Your task to perform on an android device: turn vacation reply on in the gmail app Image 0: 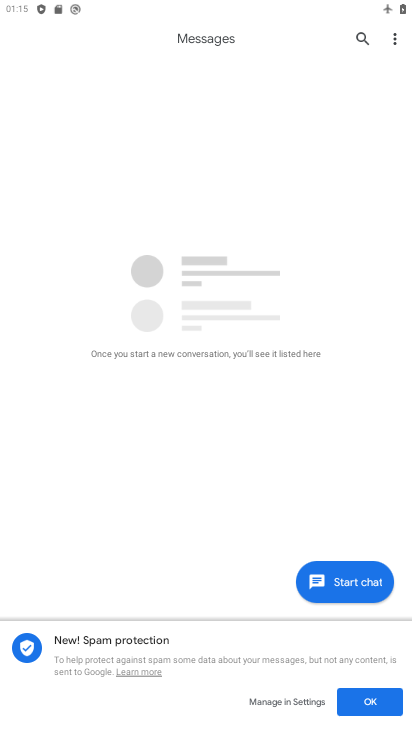
Step 0: press home button
Your task to perform on an android device: turn vacation reply on in the gmail app Image 1: 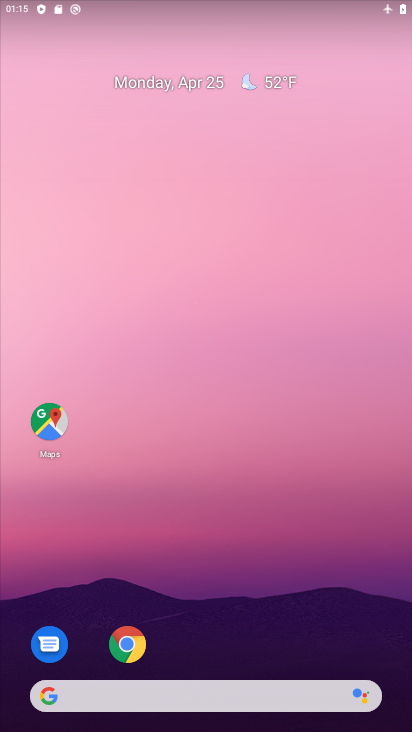
Step 1: drag from (208, 642) to (210, 90)
Your task to perform on an android device: turn vacation reply on in the gmail app Image 2: 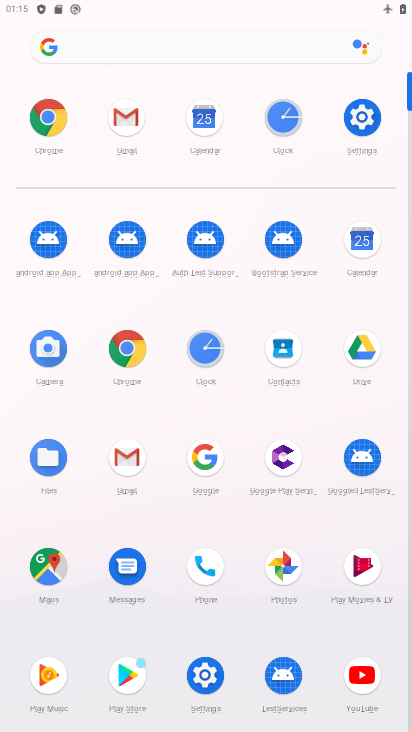
Step 2: click (135, 452)
Your task to perform on an android device: turn vacation reply on in the gmail app Image 3: 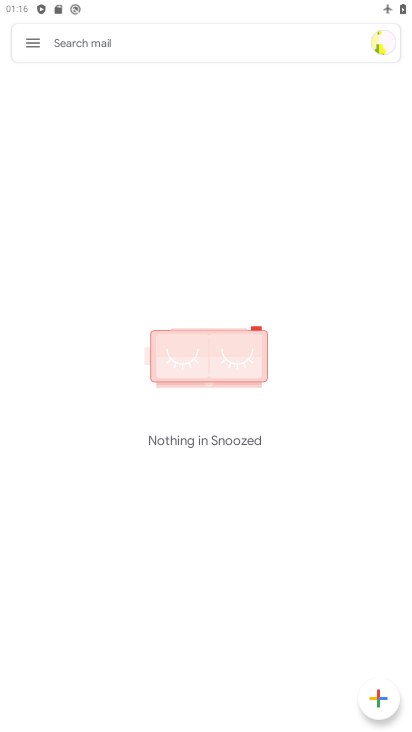
Step 3: click (26, 52)
Your task to perform on an android device: turn vacation reply on in the gmail app Image 4: 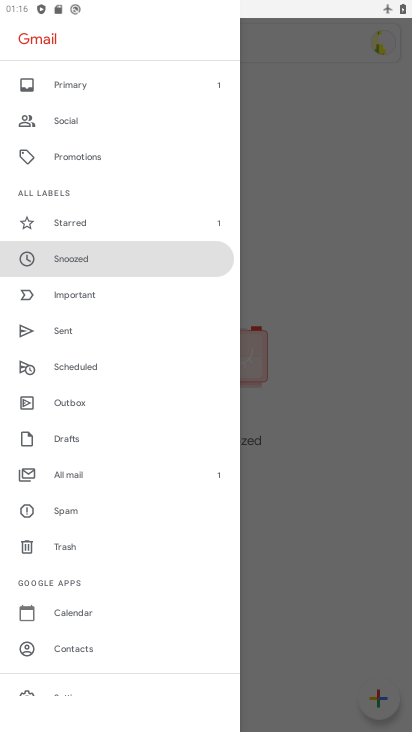
Step 4: click (97, 686)
Your task to perform on an android device: turn vacation reply on in the gmail app Image 5: 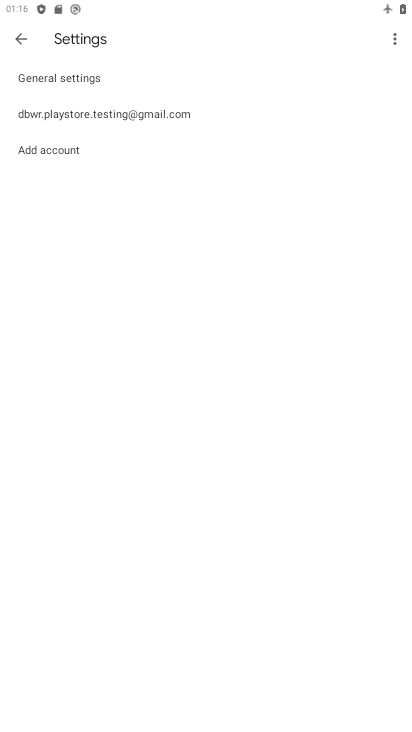
Step 5: click (156, 109)
Your task to perform on an android device: turn vacation reply on in the gmail app Image 6: 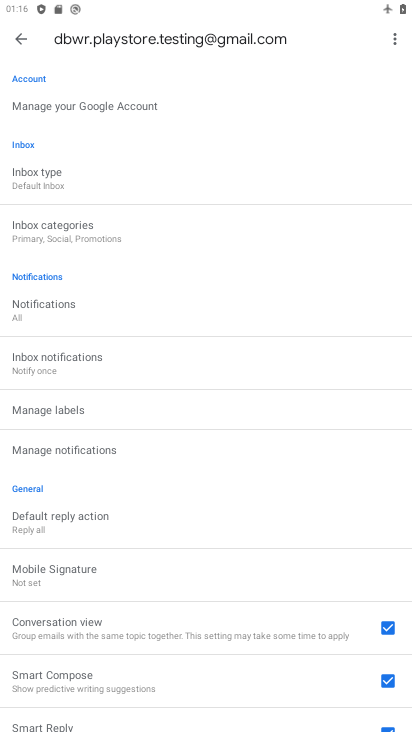
Step 6: drag from (156, 582) to (154, 286)
Your task to perform on an android device: turn vacation reply on in the gmail app Image 7: 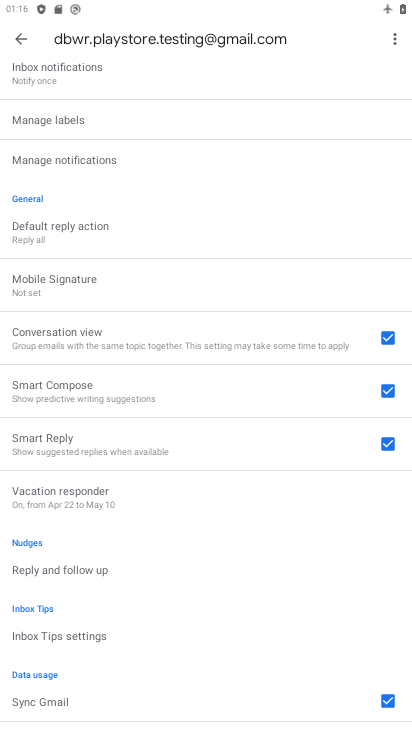
Step 7: click (213, 495)
Your task to perform on an android device: turn vacation reply on in the gmail app Image 8: 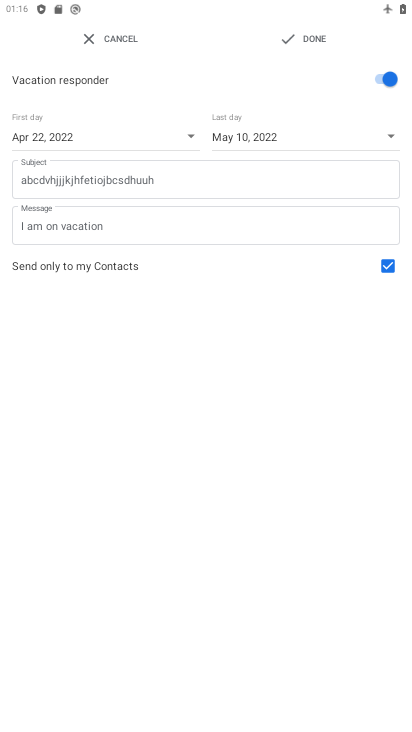
Step 8: click (300, 39)
Your task to perform on an android device: turn vacation reply on in the gmail app Image 9: 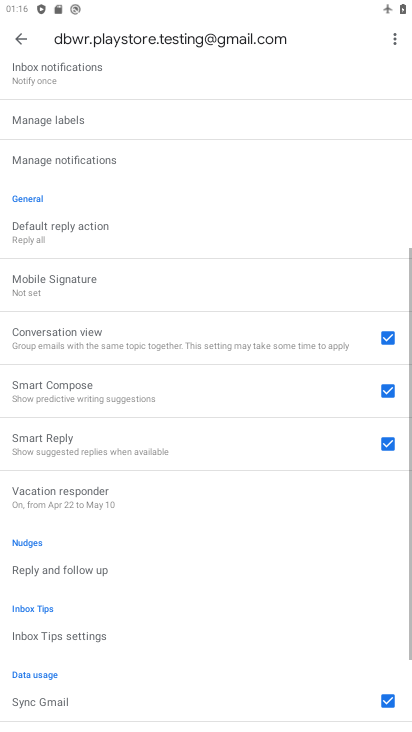
Step 9: task complete